Your task to perform on an android device: turn on data saver in the chrome app Image 0: 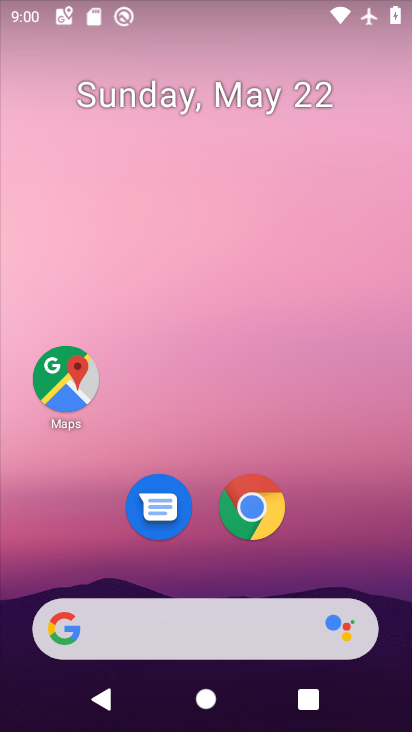
Step 0: click (249, 503)
Your task to perform on an android device: turn on data saver in the chrome app Image 1: 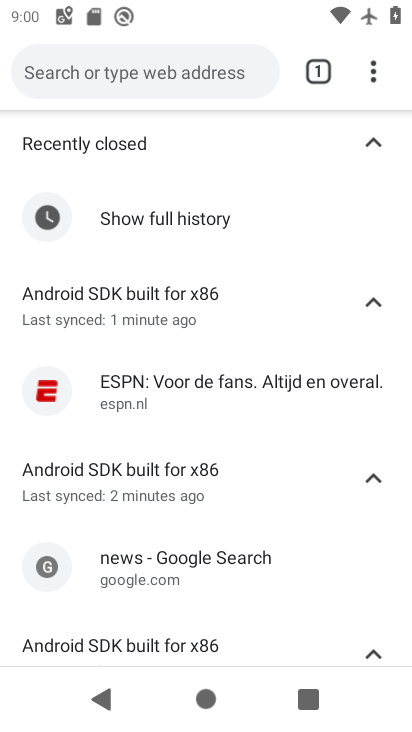
Step 1: click (383, 80)
Your task to perform on an android device: turn on data saver in the chrome app Image 2: 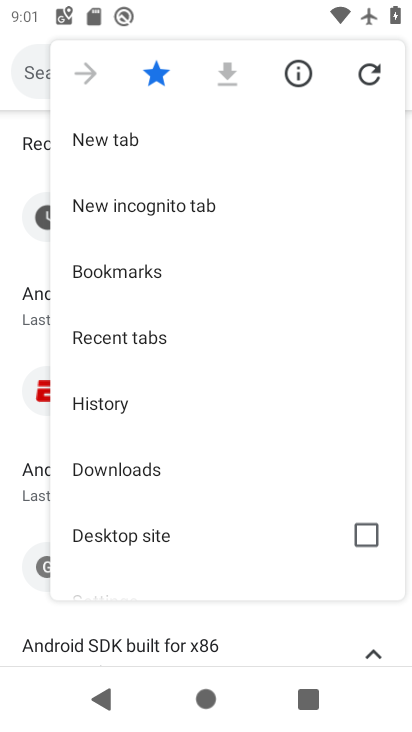
Step 2: drag from (253, 536) to (319, 159)
Your task to perform on an android device: turn on data saver in the chrome app Image 3: 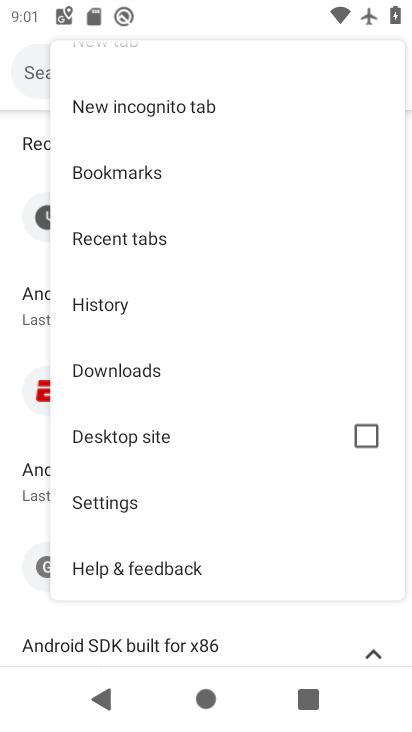
Step 3: click (141, 497)
Your task to perform on an android device: turn on data saver in the chrome app Image 4: 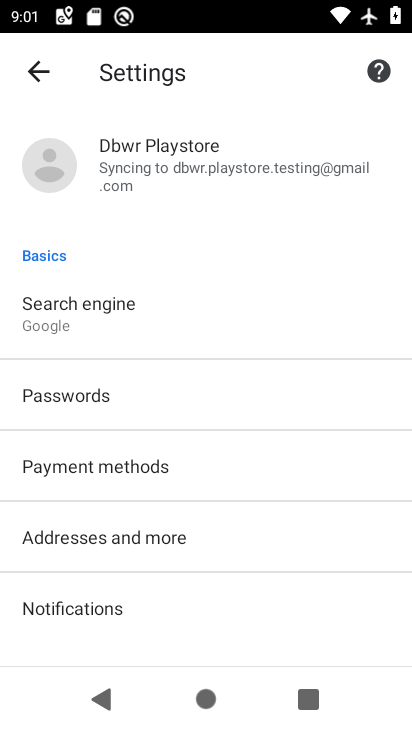
Step 4: drag from (116, 616) to (159, 388)
Your task to perform on an android device: turn on data saver in the chrome app Image 5: 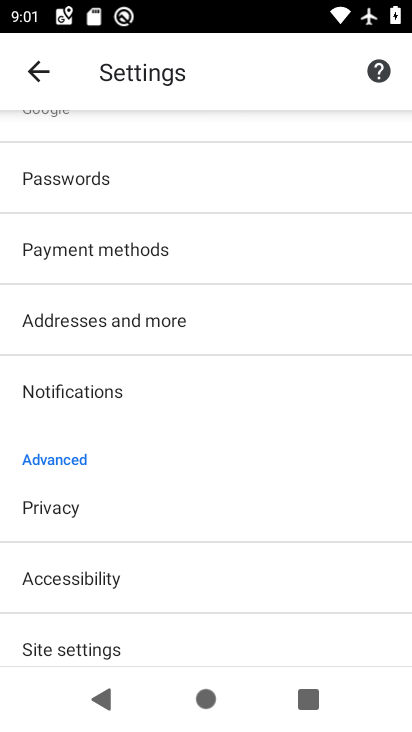
Step 5: drag from (149, 639) to (274, 170)
Your task to perform on an android device: turn on data saver in the chrome app Image 6: 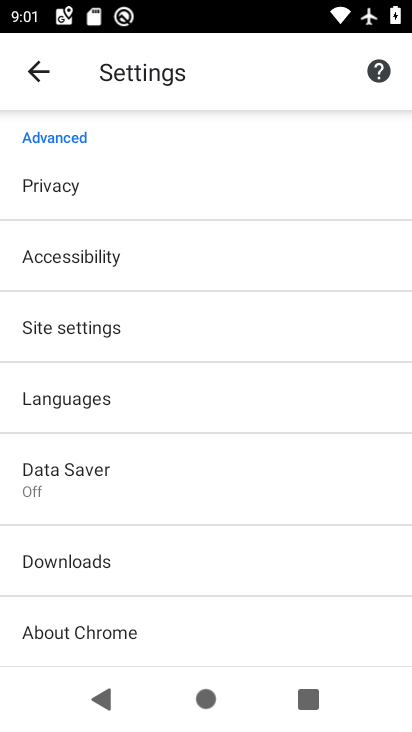
Step 6: click (109, 472)
Your task to perform on an android device: turn on data saver in the chrome app Image 7: 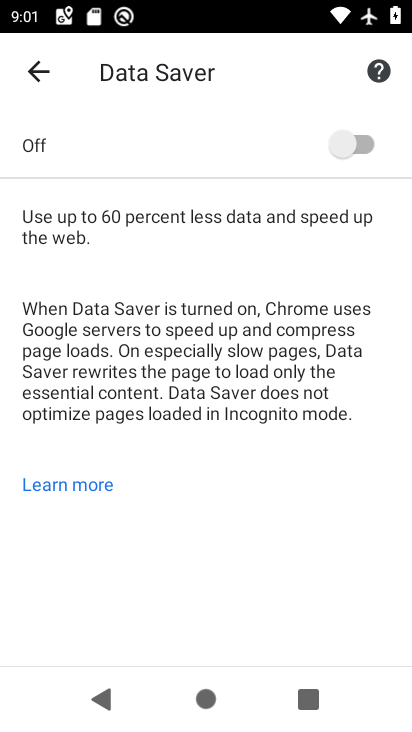
Step 7: click (365, 150)
Your task to perform on an android device: turn on data saver in the chrome app Image 8: 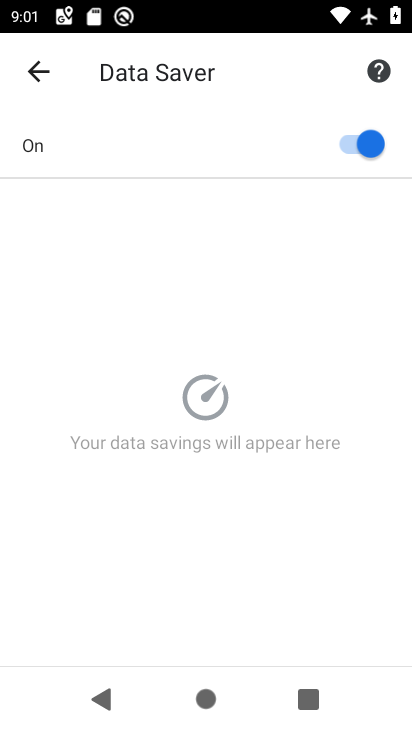
Step 8: task complete